Your task to perform on an android device: Do I have any events tomorrow? Image 0: 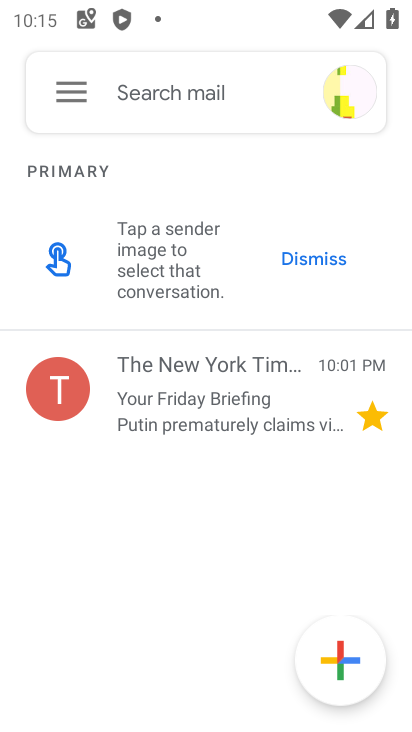
Step 0: press back button
Your task to perform on an android device: Do I have any events tomorrow? Image 1: 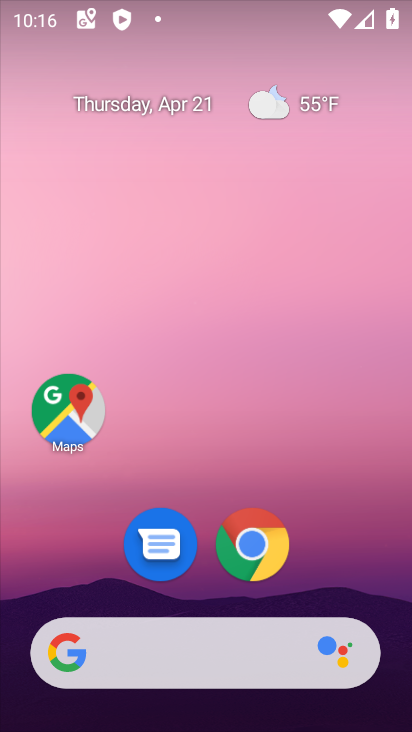
Step 1: click (137, 650)
Your task to perform on an android device: Do I have any events tomorrow? Image 2: 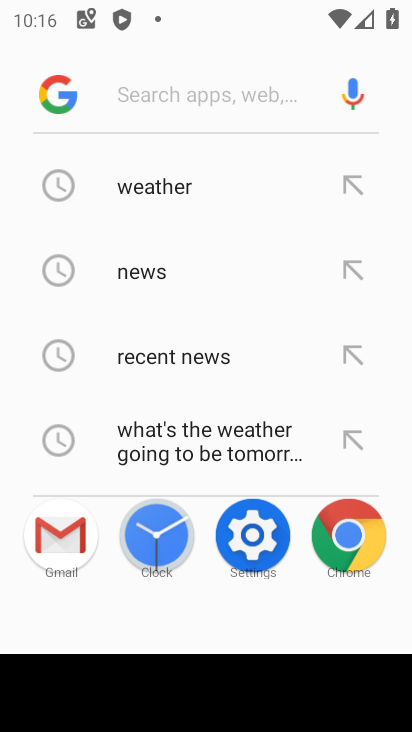
Step 2: type "Do I have any events tomorrow?"
Your task to perform on an android device: Do I have any events tomorrow? Image 3: 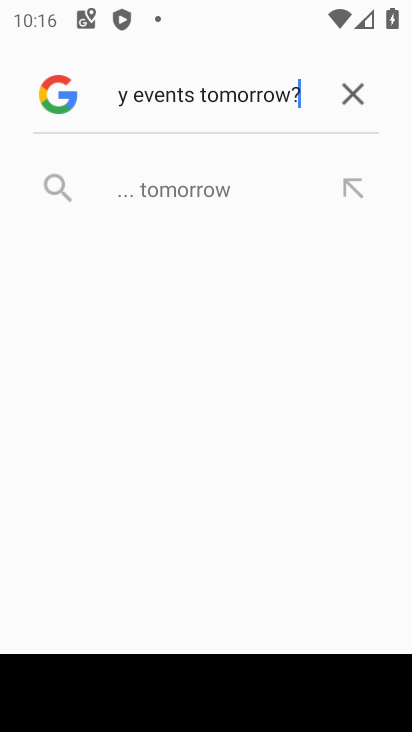
Step 3: type ""
Your task to perform on an android device: Do I have any events tomorrow? Image 4: 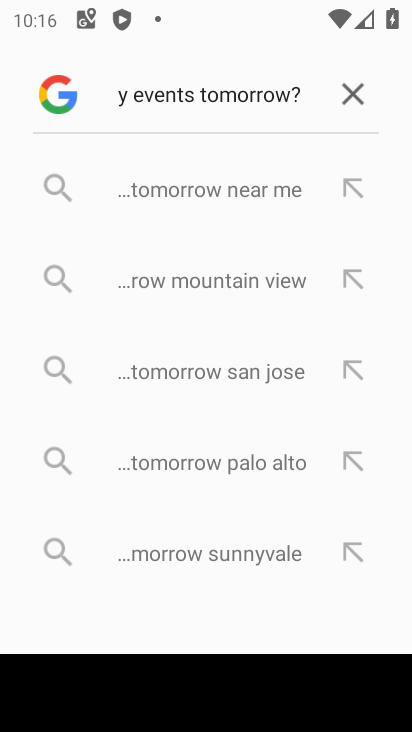
Step 4: click (171, 185)
Your task to perform on an android device: Do I have any events tomorrow? Image 5: 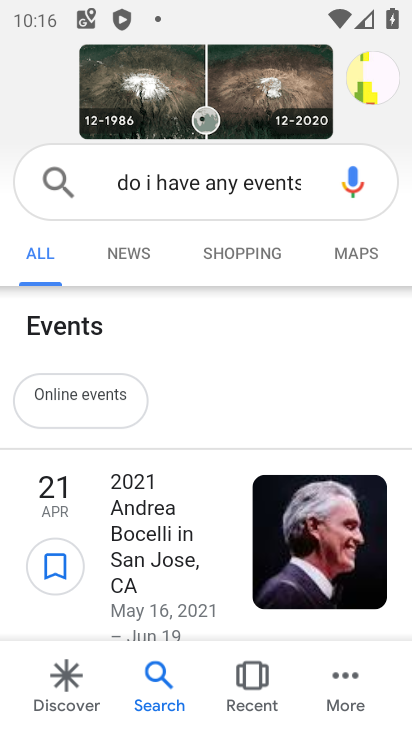
Step 5: drag from (178, 572) to (193, 333)
Your task to perform on an android device: Do I have any events tomorrow? Image 6: 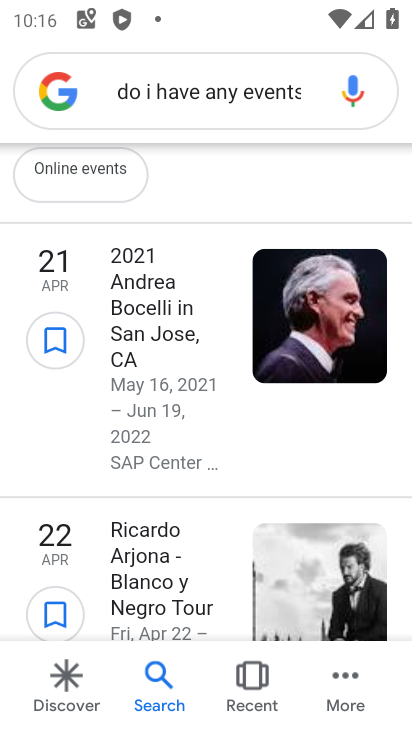
Step 6: press back button
Your task to perform on an android device: Do I have any events tomorrow? Image 7: 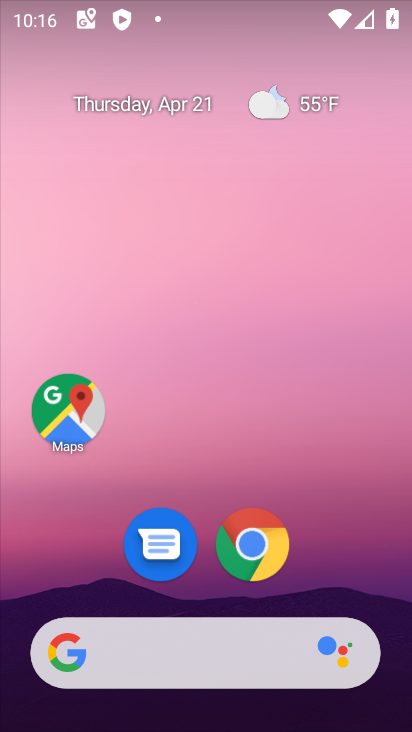
Step 7: drag from (321, 560) to (292, 19)
Your task to perform on an android device: Do I have any events tomorrow? Image 8: 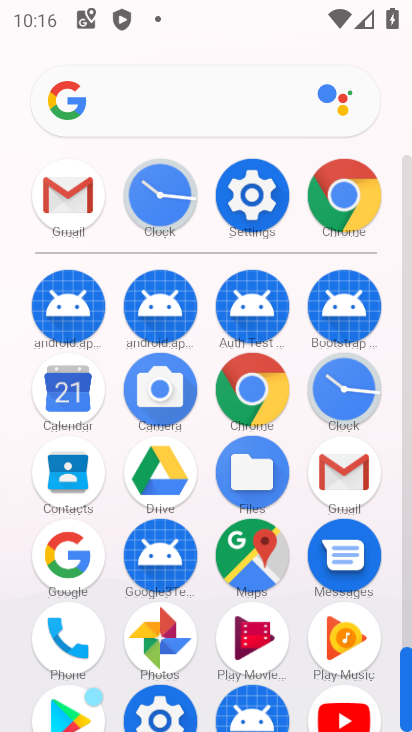
Step 8: click (64, 381)
Your task to perform on an android device: Do I have any events tomorrow? Image 9: 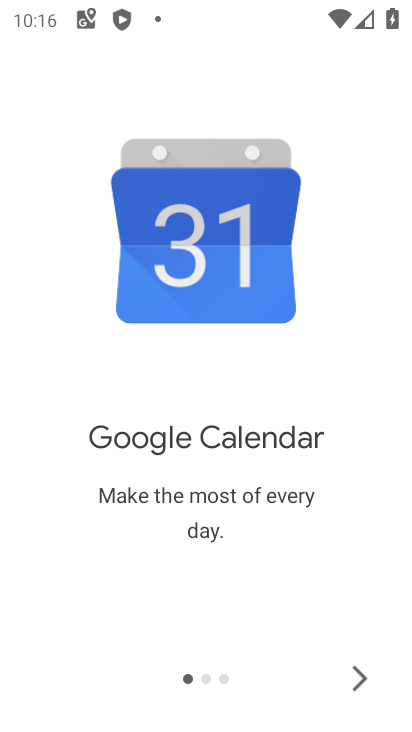
Step 9: click (353, 677)
Your task to perform on an android device: Do I have any events tomorrow? Image 10: 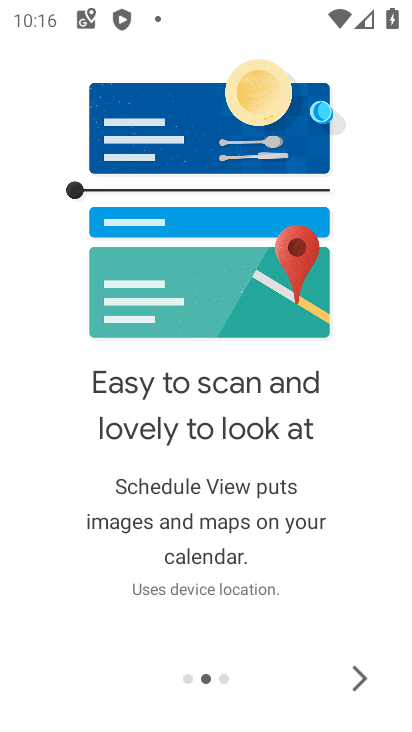
Step 10: click (353, 677)
Your task to perform on an android device: Do I have any events tomorrow? Image 11: 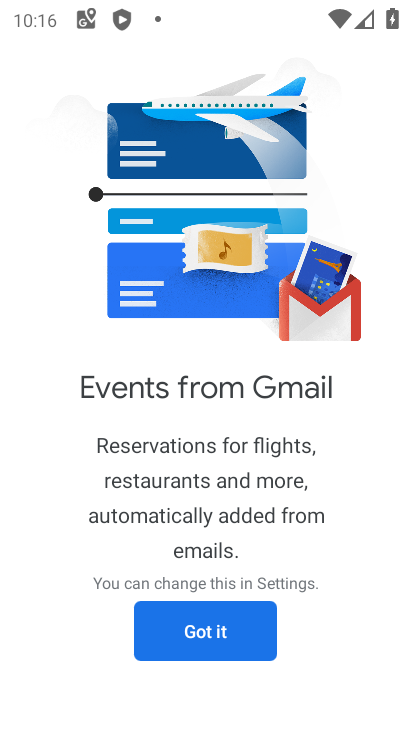
Step 11: click (186, 642)
Your task to perform on an android device: Do I have any events tomorrow? Image 12: 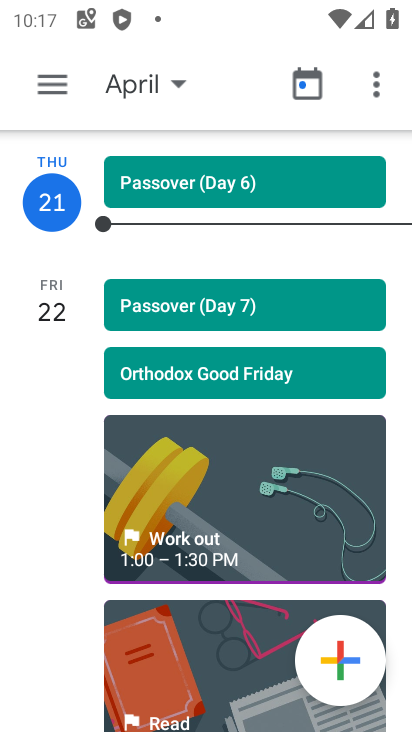
Step 12: click (40, 295)
Your task to perform on an android device: Do I have any events tomorrow? Image 13: 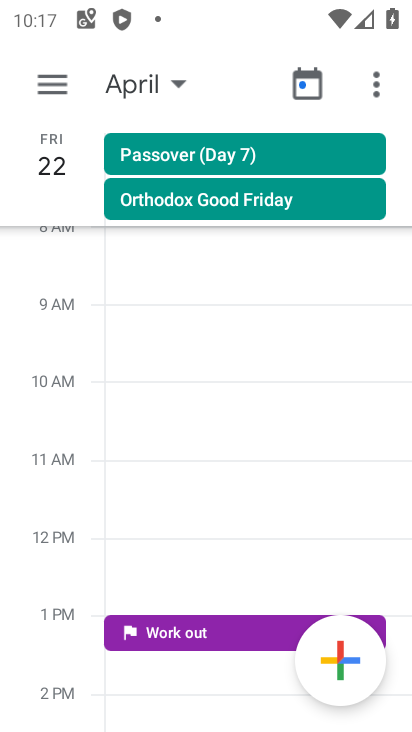
Step 13: task complete